Your task to perform on an android device: turn off location Image 0: 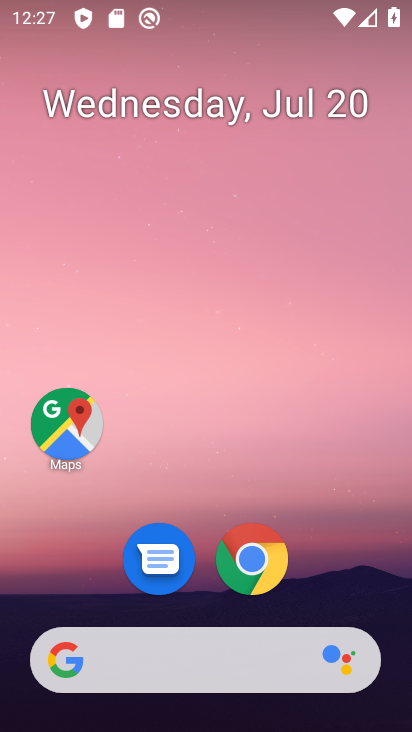
Step 0: drag from (373, 577) to (374, 134)
Your task to perform on an android device: turn off location Image 1: 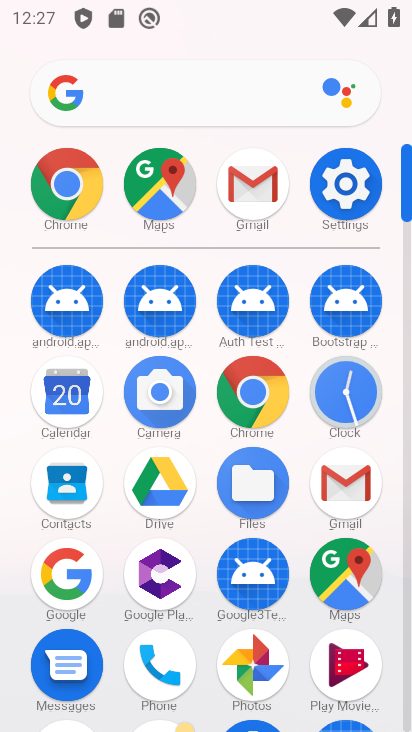
Step 1: click (362, 204)
Your task to perform on an android device: turn off location Image 2: 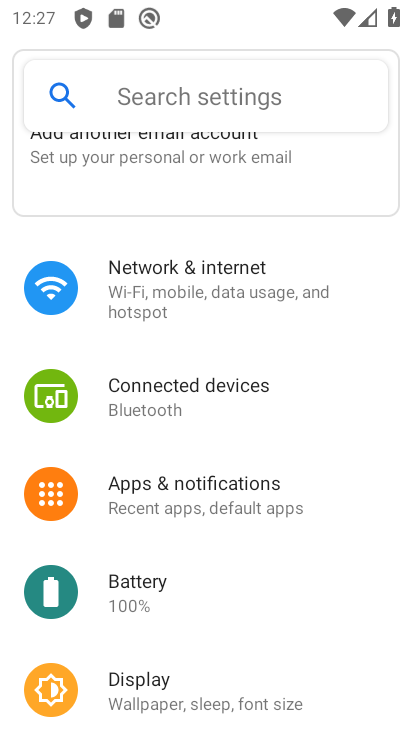
Step 2: drag from (362, 428) to (346, 263)
Your task to perform on an android device: turn off location Image 3: 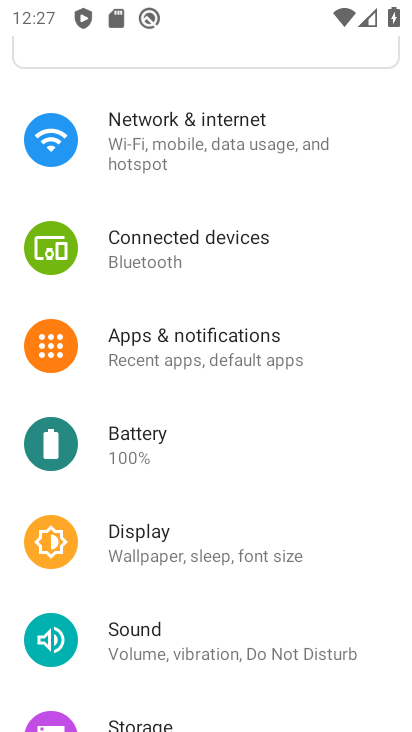
Step 3: drag from (329, 402) to (323, 274)
Your task to perform on an android device: turn off location Image 4: 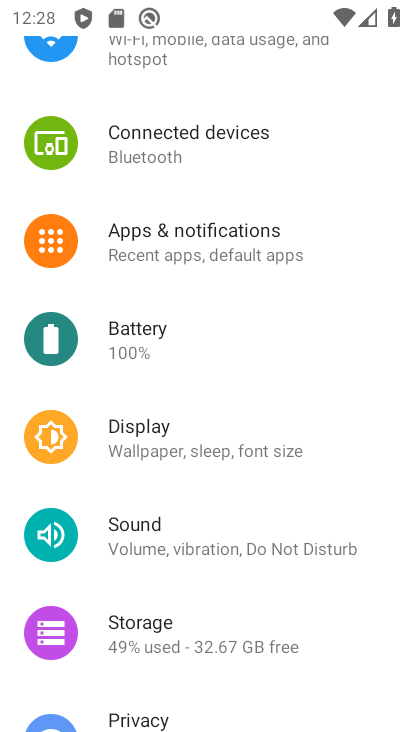
Step 4: drag from (350, 456) to (355, 327)
Your task to perform on an android device: turn off location Image 5: 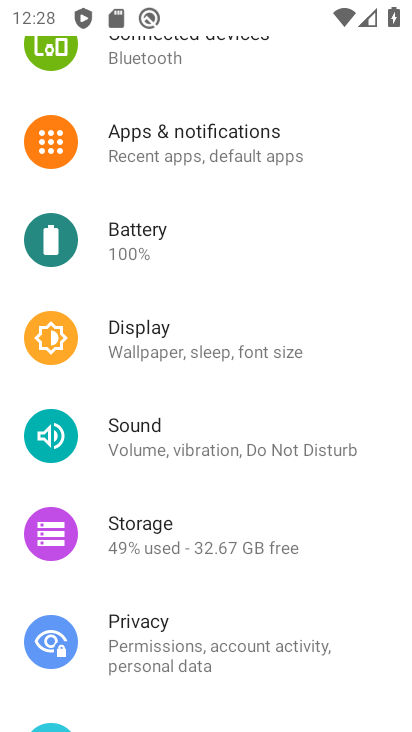
Step 5: drag from (354, 510) to (351, 330)
Your task to perform on an android device: turn off location Image 6: 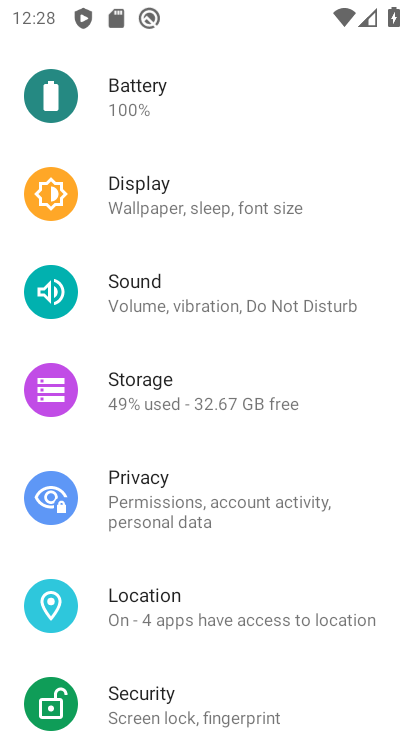
Step 6: drag from (365, 516) to (362, 361)
Your task to perform on an android device: turn off location Image 7: 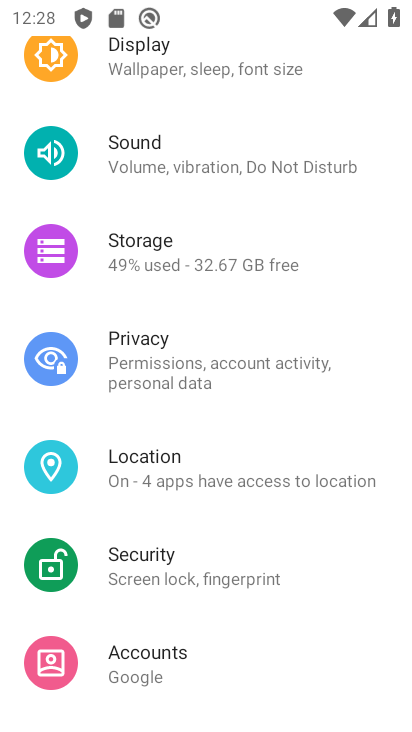
Step 7: click (279, 482)
Your task to perform on an android device: turn off location Image 8: 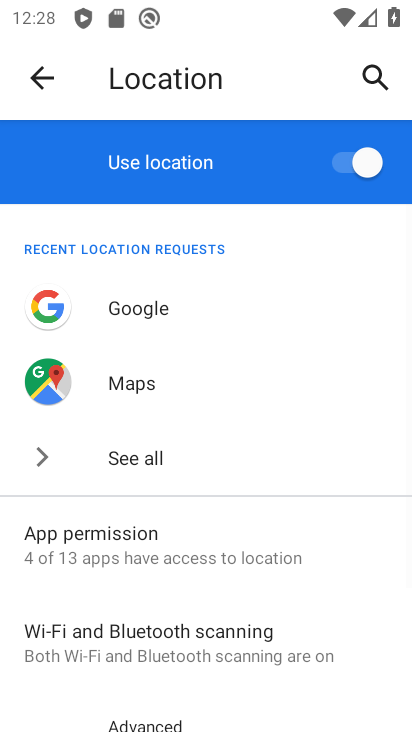
Step 8: click (352, 156)
Your task to perform on an android device: turn off location Image 9: 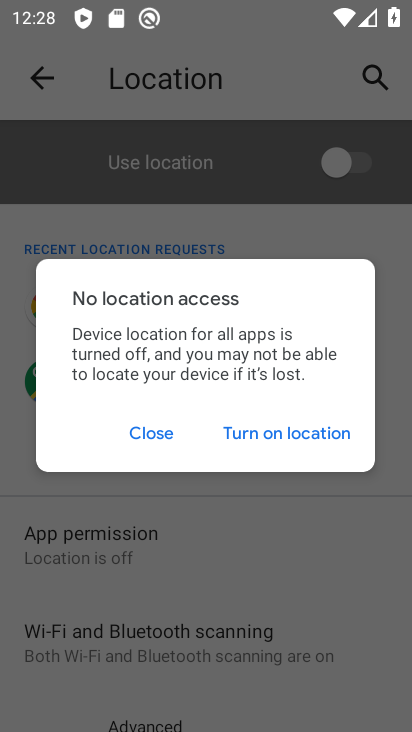
Step 9: task complete